Your task to perform on an android device: Go to wifi settings Image 0: 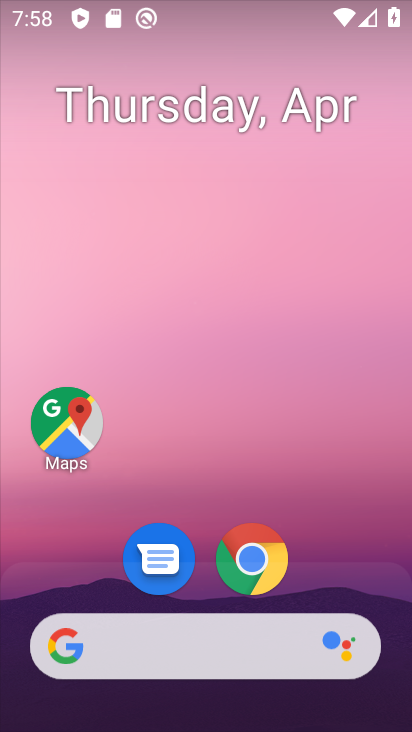
Step 0: drag from (280, 417) to (308, 219)
Your task to perform on an android device: Go to wifi settings Image 1: 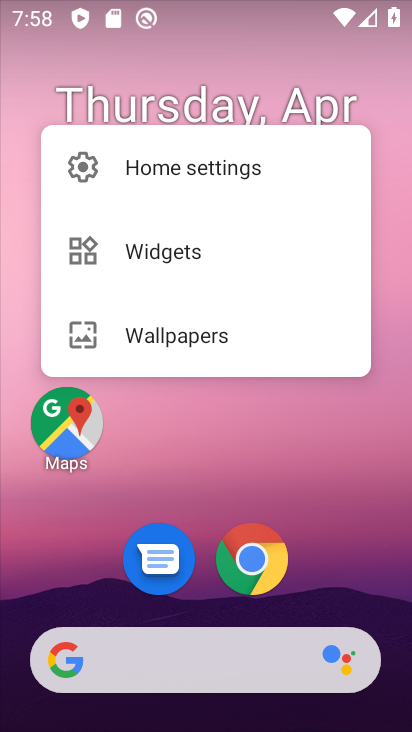
Step 1: drag from (192, 278) to (212, 133)
Your task to perform on an android device: Go to wifi settings Image 2: 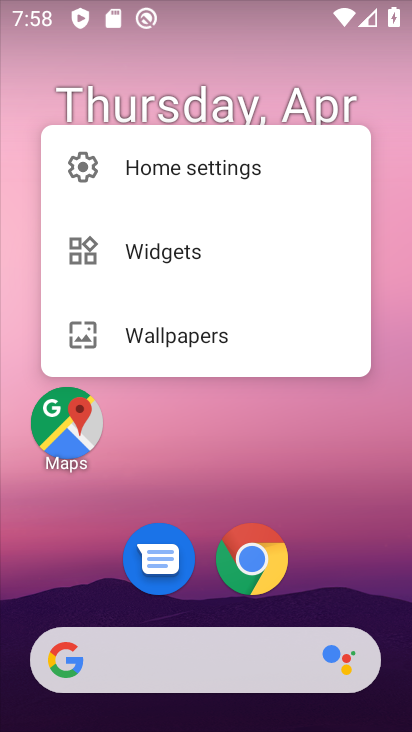
Step 2: click (268, 168)
Your task to perform on an android device: Go to wifi settings Image 3: 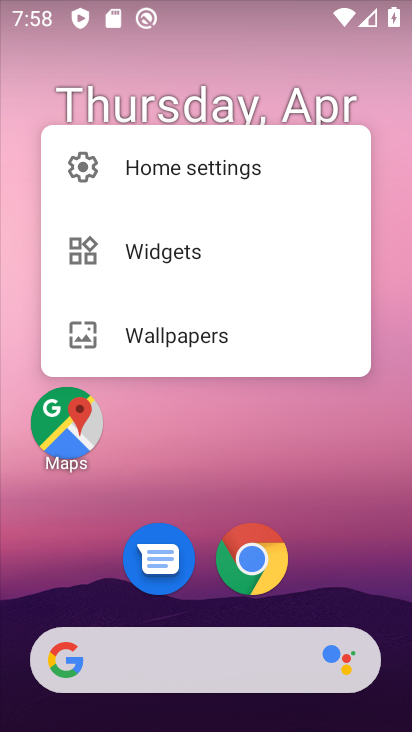
Step 3: drag from (288, 470) to (237, 166)
Your task to perform on an android device: Go to wifi settings Image 4: 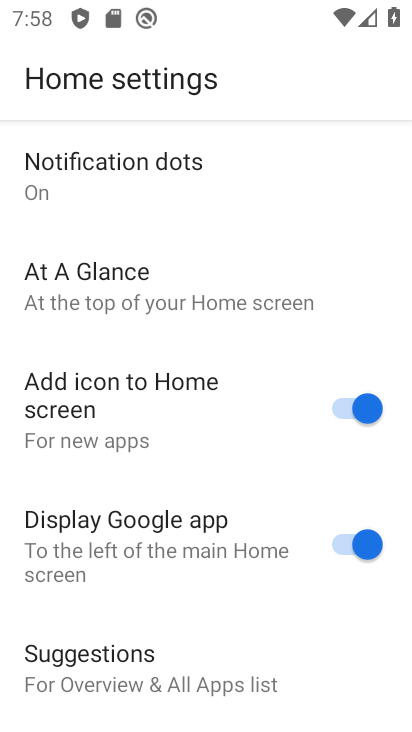
Step 4: click (279, 452)
Your task to perform on an android device: Go to wifi settings Image 5: 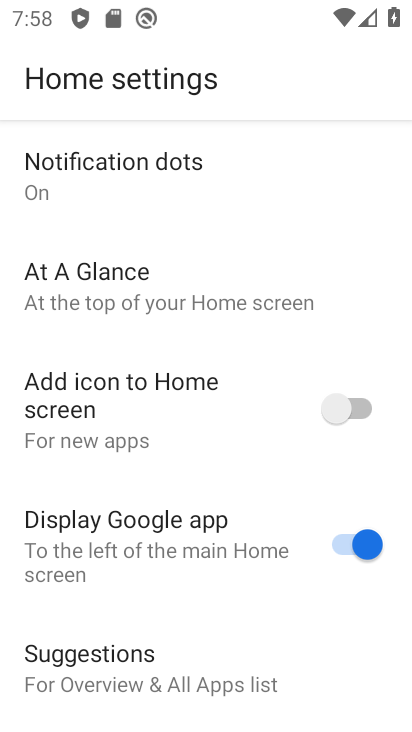
Step 5: press home button
Your task to perform on an android device: Go to wifi settings Image 6: 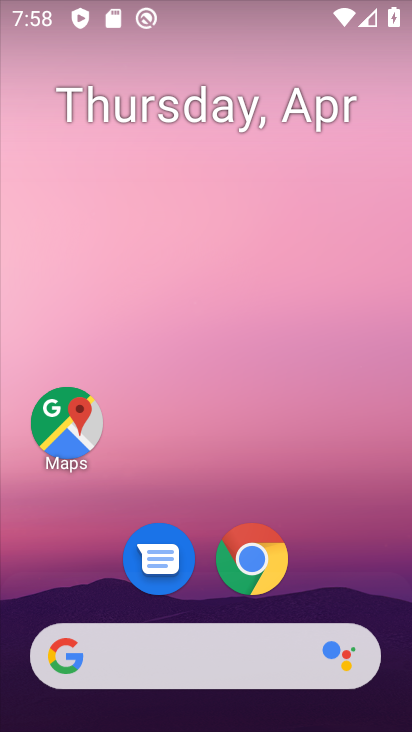
Step 6: drag from (221, 621) to (83, 202)
Your task to perform on an android device: Go to wifi settings Image 7: 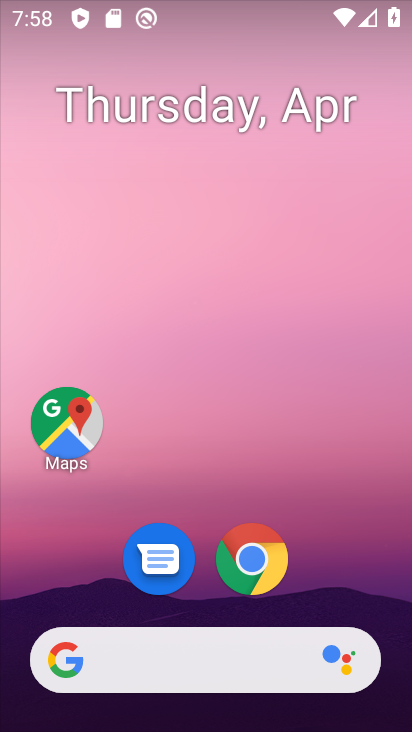
Step 7: click (295, 206)
Your task to perform on an android device: Go to wifi settings Image 8: 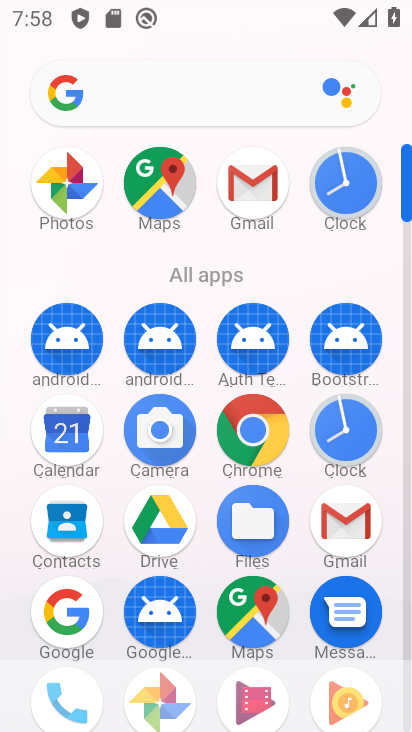
Step 8: drag from (263, 304) to (240, 230)
Your task to perform on an android device: Go to wifi settings Image 9: 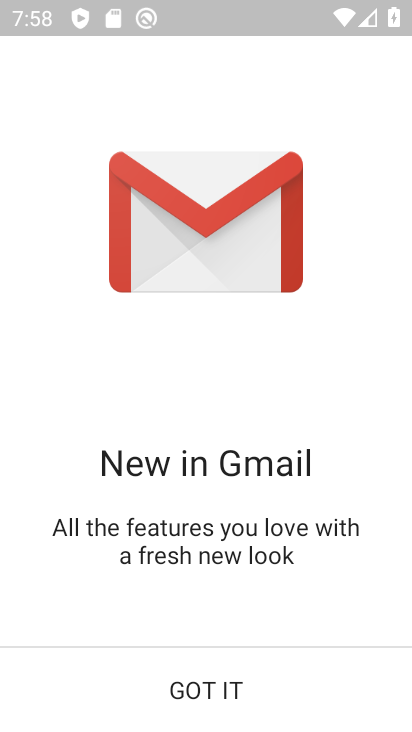
Step 9: press home button
Your task to perform on an android device: Go to wifi settings Image 10: 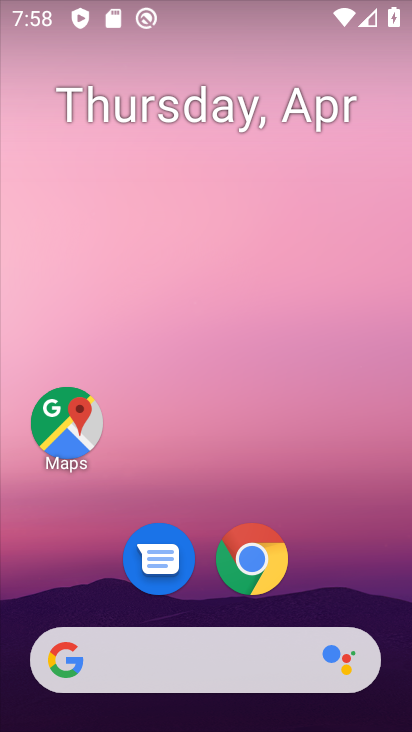
Step 10: drag from (344, 459) to (262, 163)
Your task to perform on an android device: Go to wifi settings Image 11: 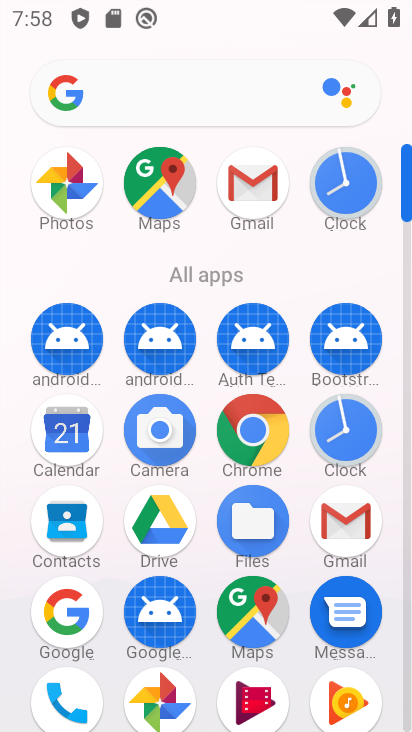
Step 11: click (240, 412)
Your task to perform on an android device: Go to wifi settings Image 12: 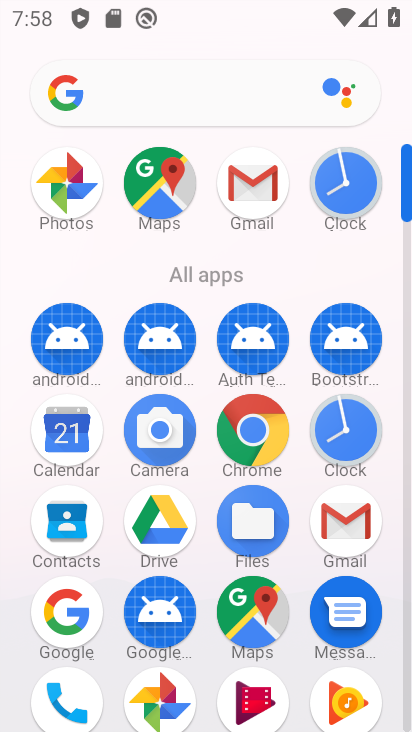
Step 12: drag from (315, 650) to (230, 208)
Your task to perform on an android device: Go to wifi settings Image 13: 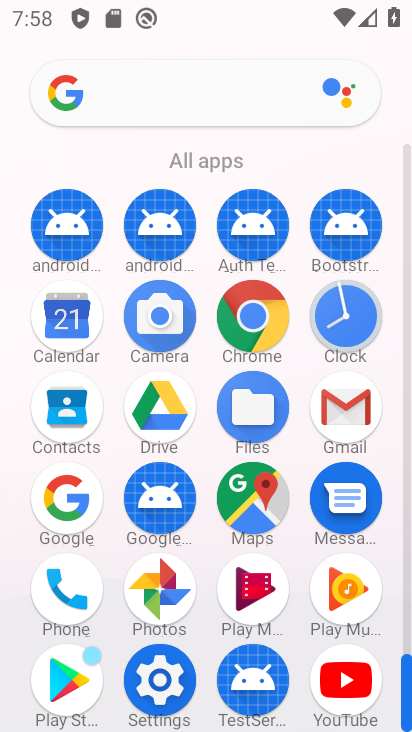
Step 13: drag from (296, 424) to (262, 141)
Your task to perform on an android device: Go to wifi settings Image 14: 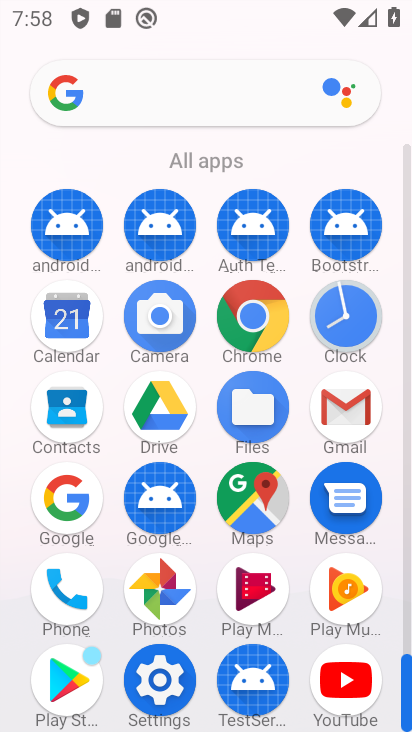
Step 14: click (171, 692)
Your task to perform on an android device: Go to wifi settings Image 15: 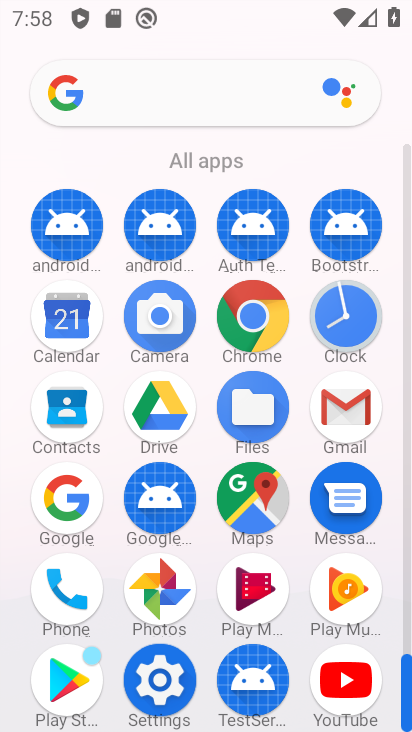
Step 15: click (171, 692)
Your task to perform on an android device: Go to wifi settings Image 16: 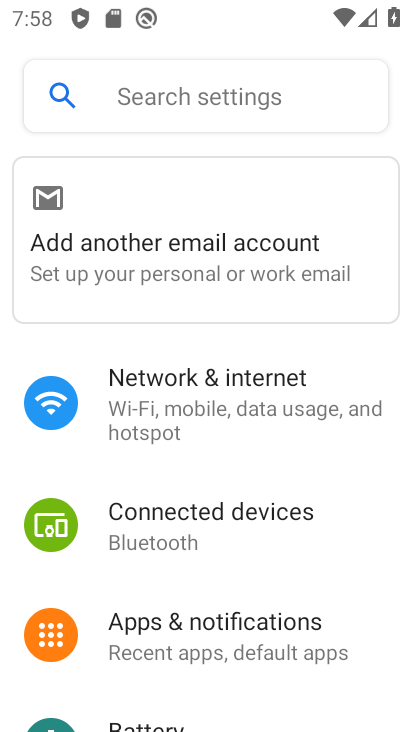
Step 16: click (206, 392)
Your task to perform on an android device: Go to wifi settings Image 17: 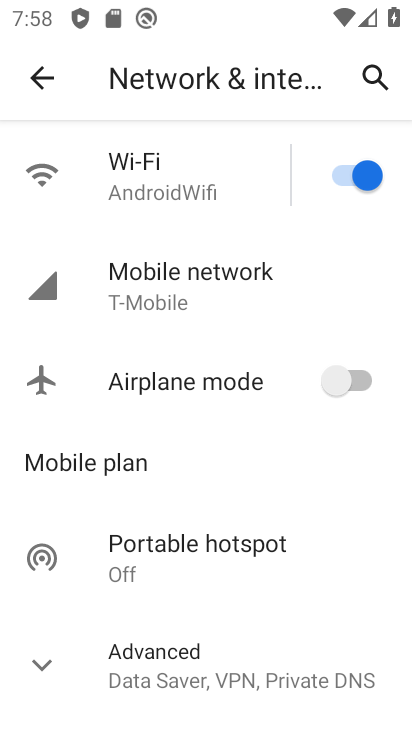
Step 17: task complete